Your task to perform on an android device: add a contact in the contacts app Image 0: 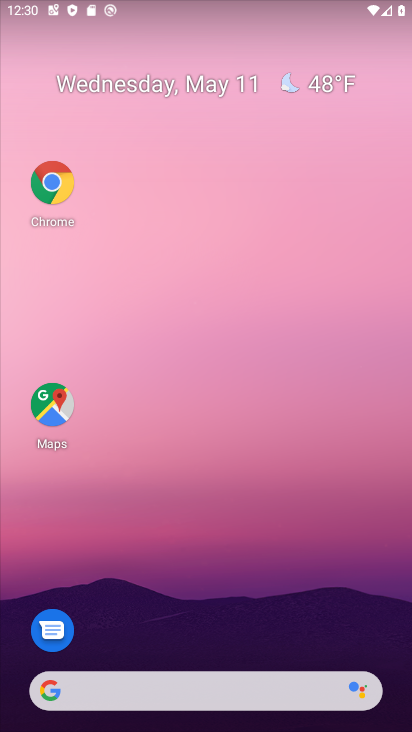
Step 0: drag from (207, 669) to (191, 49)
Your task to perform on an android device: add a contact in the contacts app Image 1: 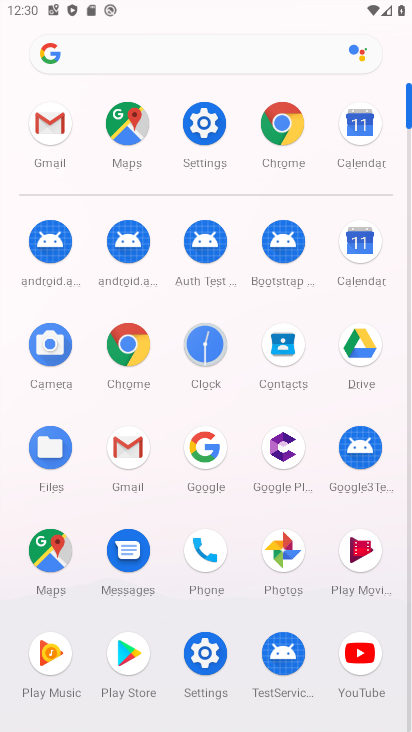
Step 1: click (198, 543)
Your task to perform on an android device: add a contact in the contacts app Image 2: 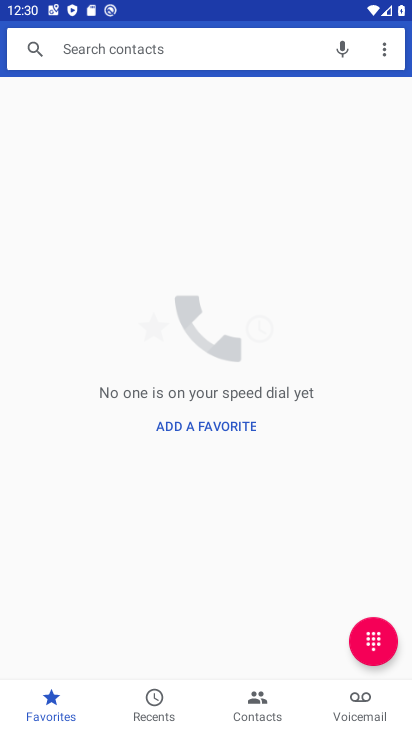
Step 2: click (248, 697)
Your task to perform on an android device: add a contact in the contacts app Image 3: 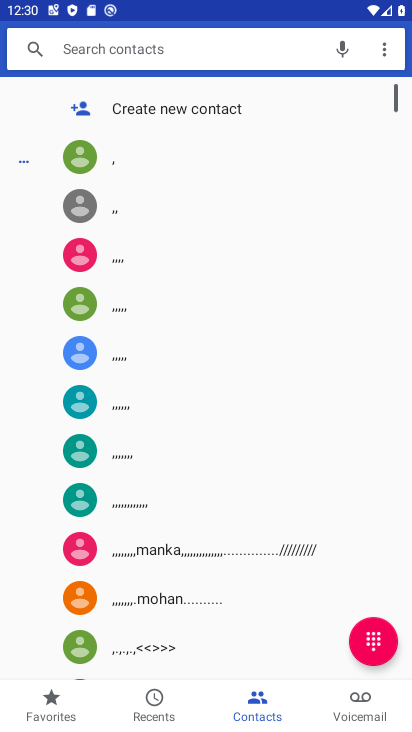
Step 3: click (168, 99)
Your task to perform on an android device: add a contact in the contacts app Image 4: 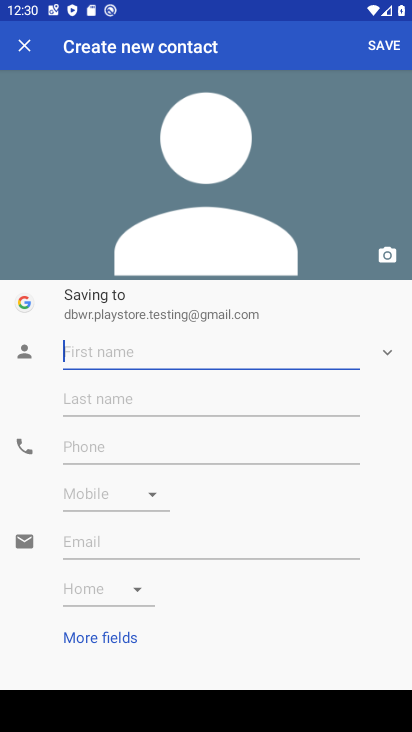
Step 4: type "jio"
Your task to perform on an android device: add a contact in the contacts app Image 5: 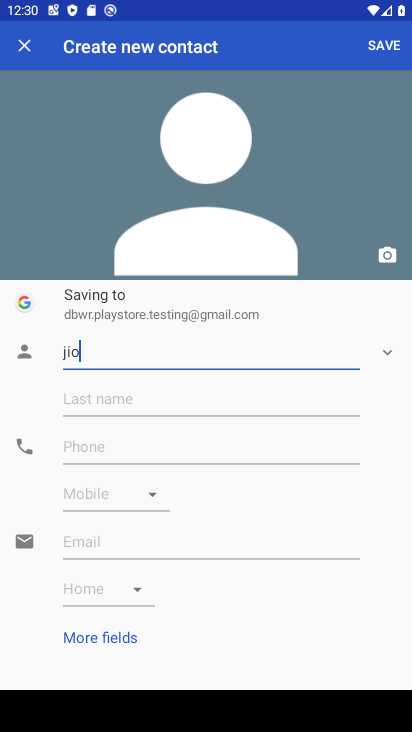
Step 5: type ""
Your task to perform on an android device: add a contact in the contacts app Image 6: 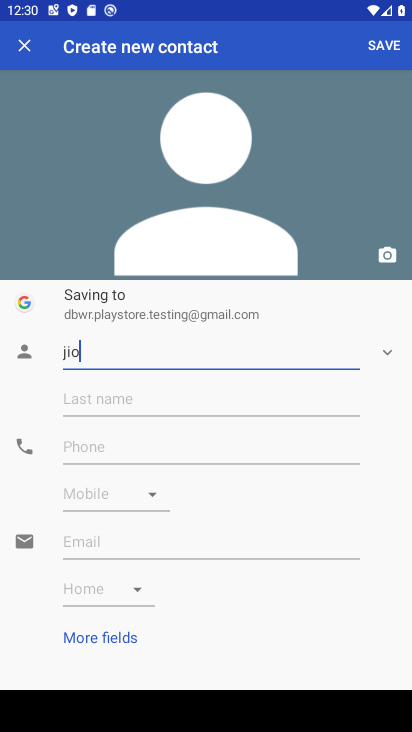
Step 6: click (159, 447)
Your task to perform on an android device: add a contact in the contacts app Image 7: 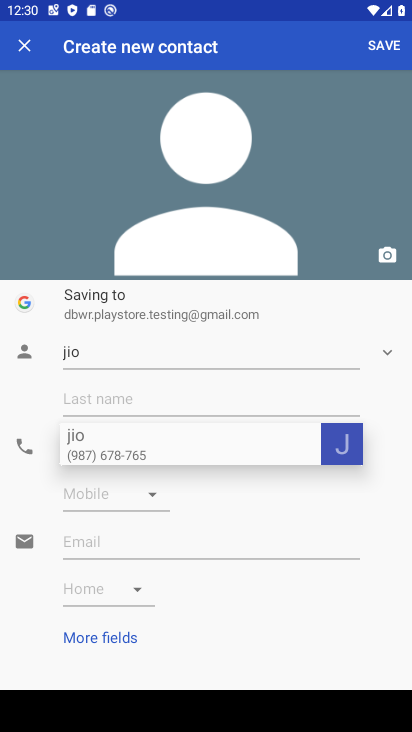
Step 7: type "98765456765"
Your task to perform on an android device: add a contact in the contacts app Image 8: 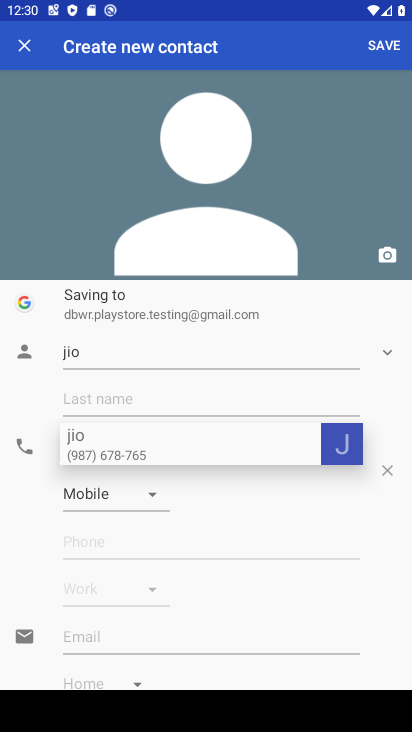
Step 8: type ""
Your task to perform on an android device: add a contact in the contacts app Image 9: 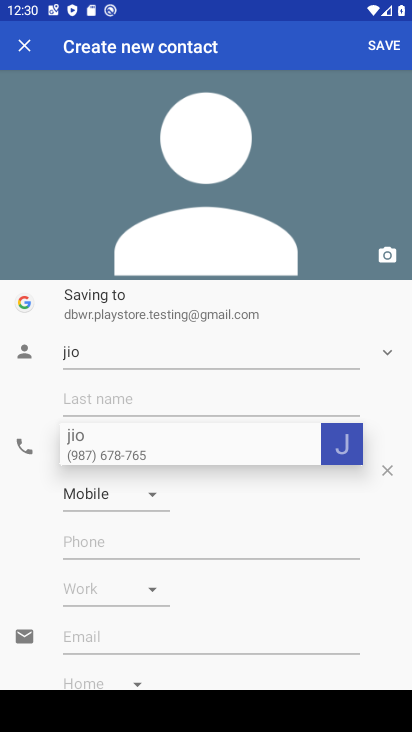
Step 9: click (371, 39)
Your task to perform on an android device: add a contact in the contacts app Image 10: 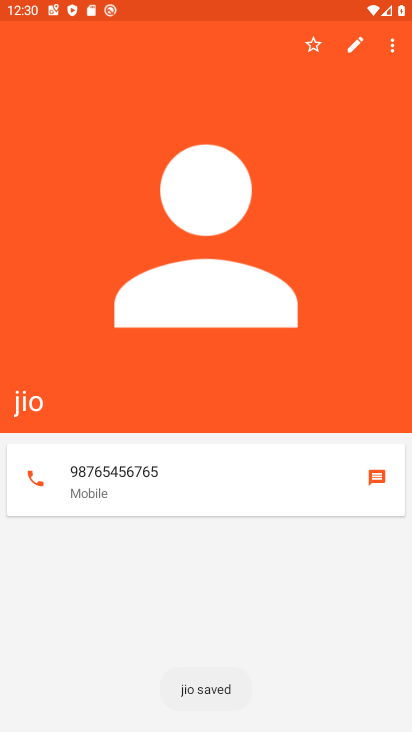
Step 10: task complete